Your task to perform on an android device: check battery use Image 0: 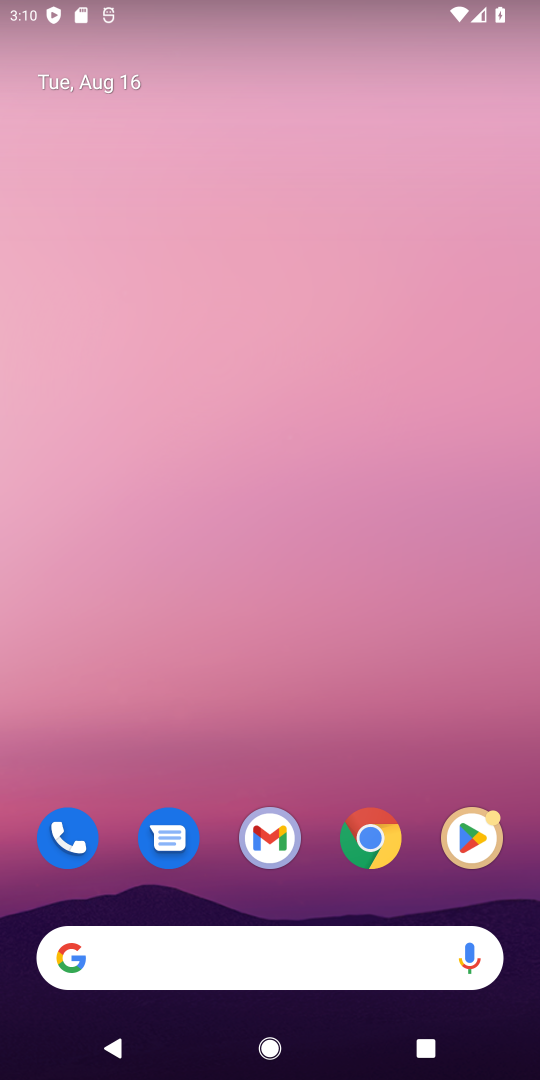
Step 0: drag from (263, 893) to (116, 133)
Your task to perform on an android device: check battery use Image 1: 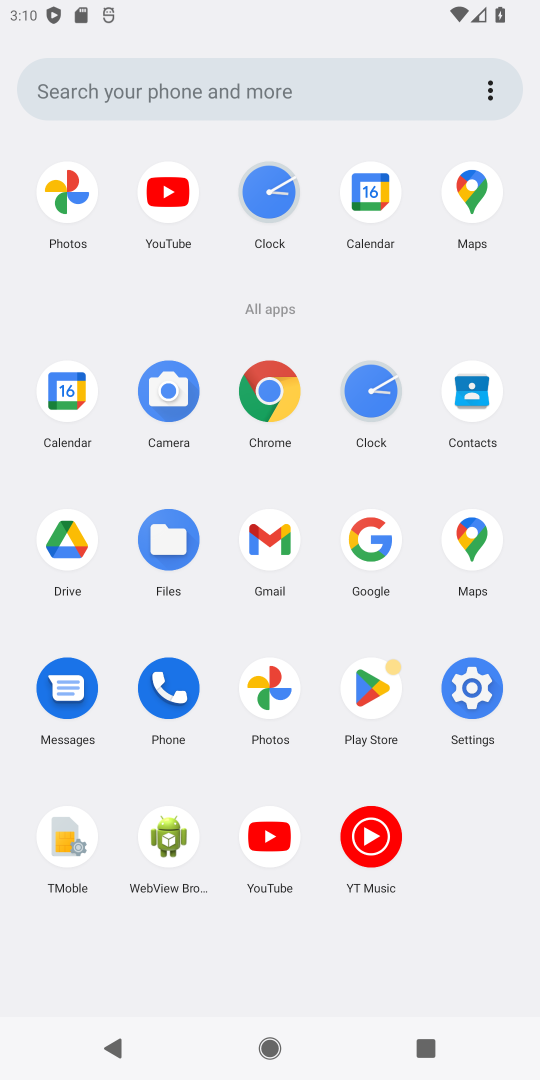
Step 1: click (474, 686)
Your task to perform on an android device: check battery use Image 2: 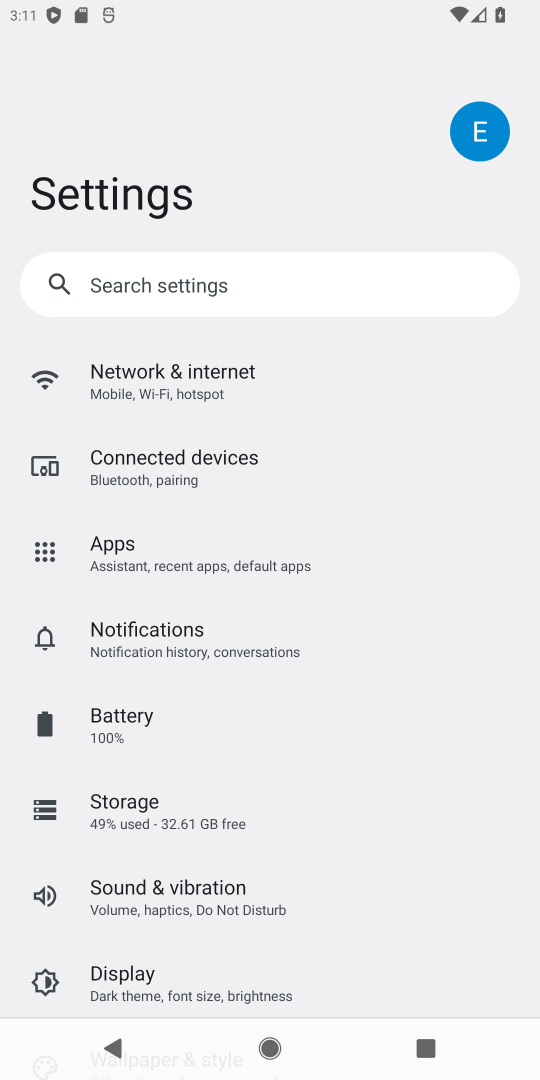
Step 2: click (103, 735)
Your task to perform on an android device: check battery use Image 3: 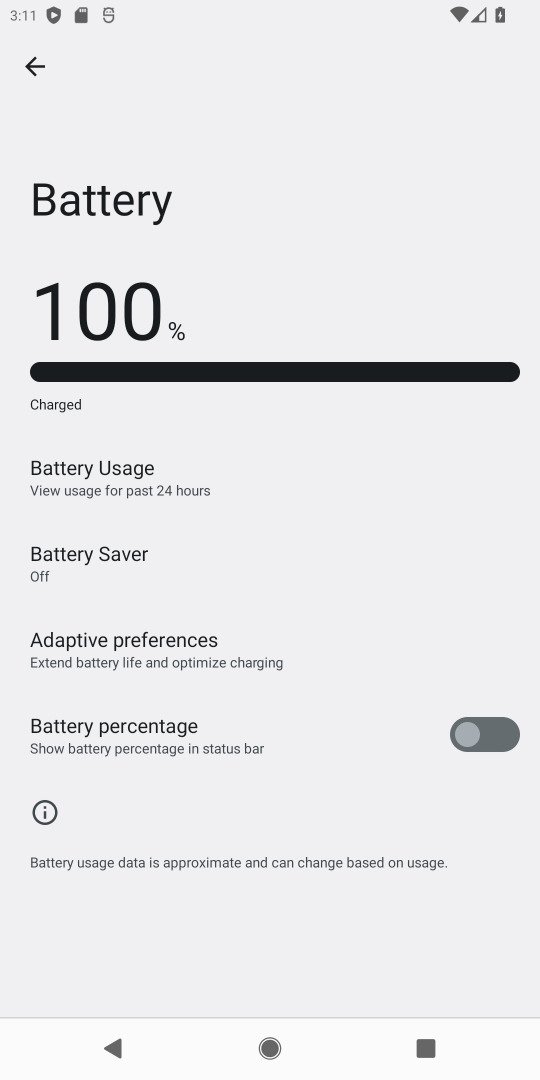
Step 3: task complete